Your task to perform on an android device: turn on sleep mode Image 0: 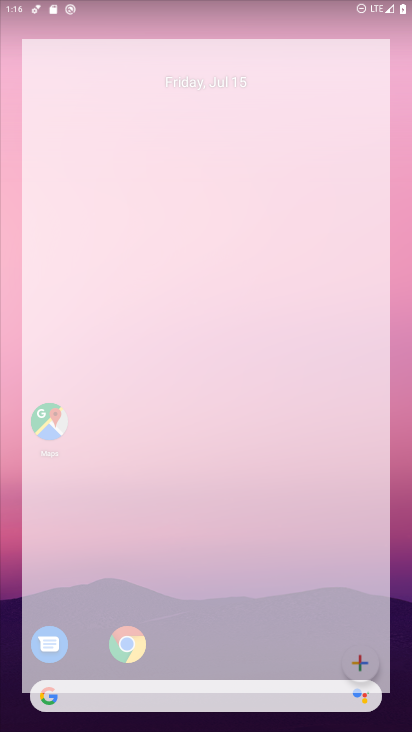
Step 0: click (391, 407)
Your task to perform on an android device: turn on sleep mode Image 1: 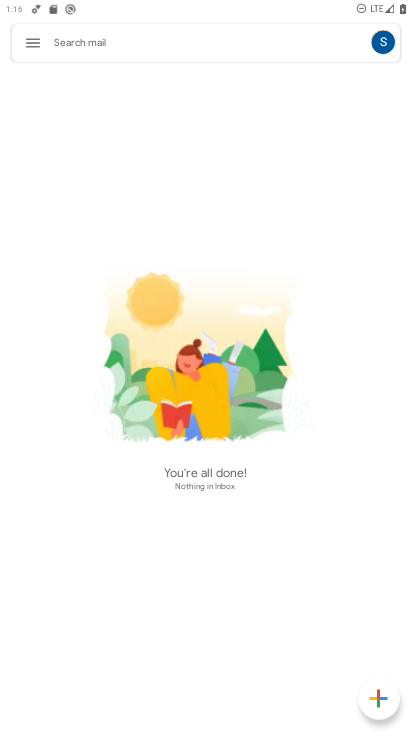
Step 1: press home button
Your task to perform on an android device: turn on sleep mode Image 2: 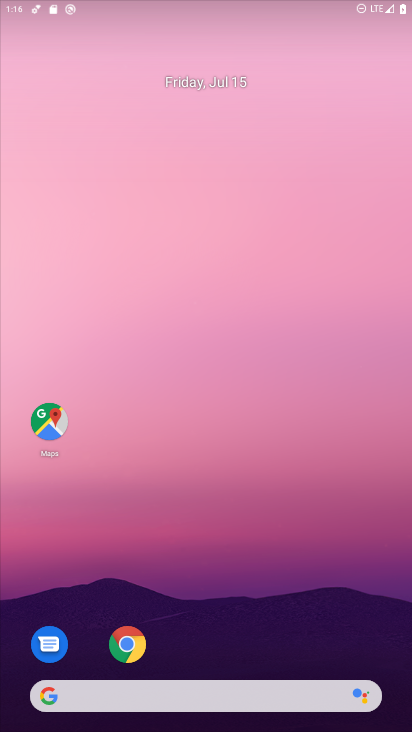
Step 2: drag from (0, 724) to (269, 134)
Your task to perform on an android device: turn on sleep mode Image 3: 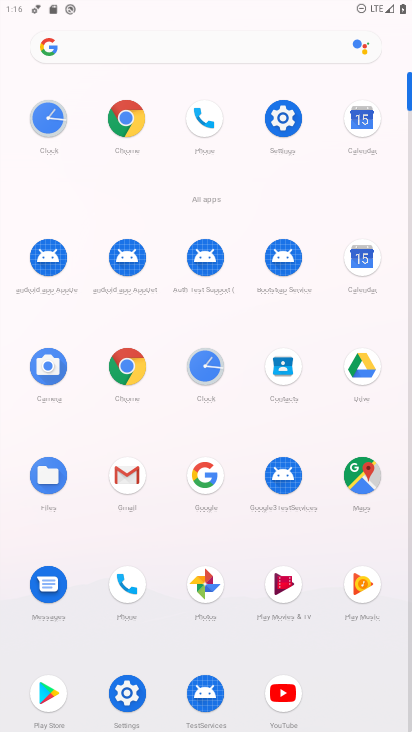
Step 3: click (294, 131)
Your task to perform on an android device: turn on sleep mode Image 4: 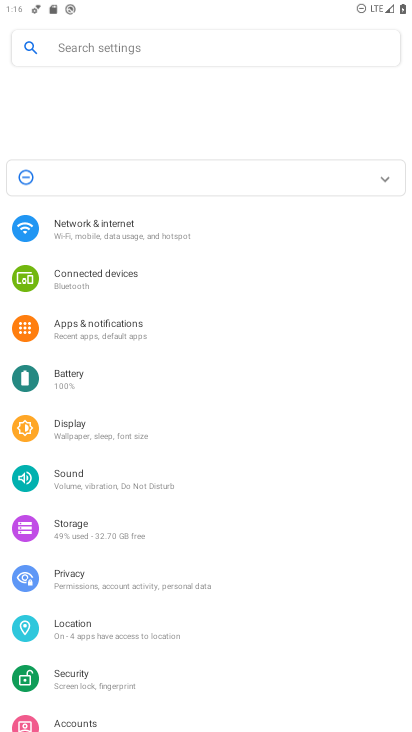
Step 4: task complete